Your task to perform on an android device: What's on my calendar tomorrow? Image 0: 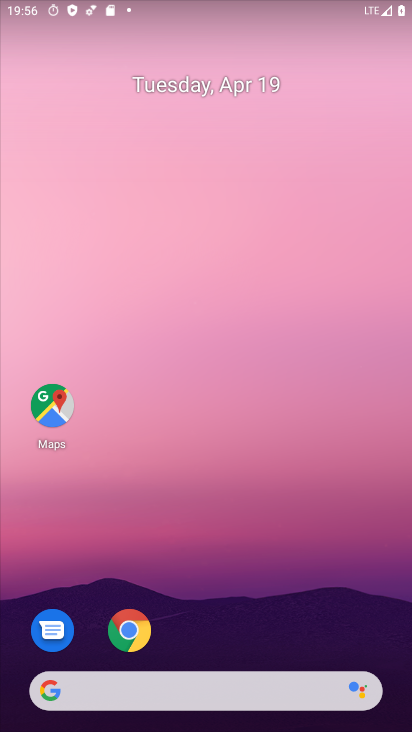
Step 0: drag from (219, 659) to (222, 302)
Your task to perform on an android device: What's on my calendar tomorrow? Image 1: 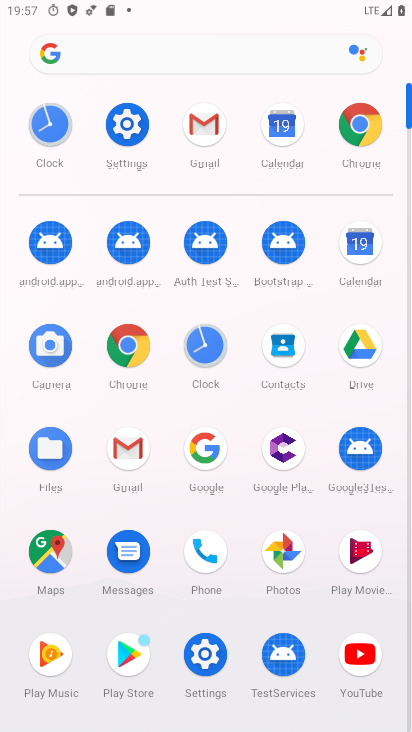
Step 1: click (361, 251)
Your task to perform on an android device: What's on my calendar tomorrow? Image 2: 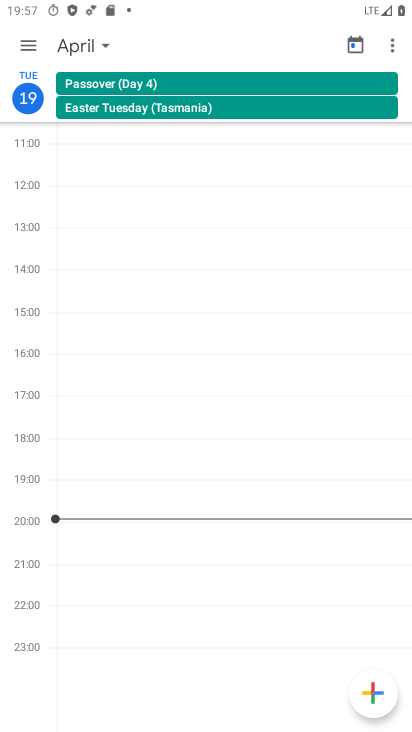
Step 2: click (23, 48)
Your task to perform on an android device: What's on my calendar tomorrow? Image 3: 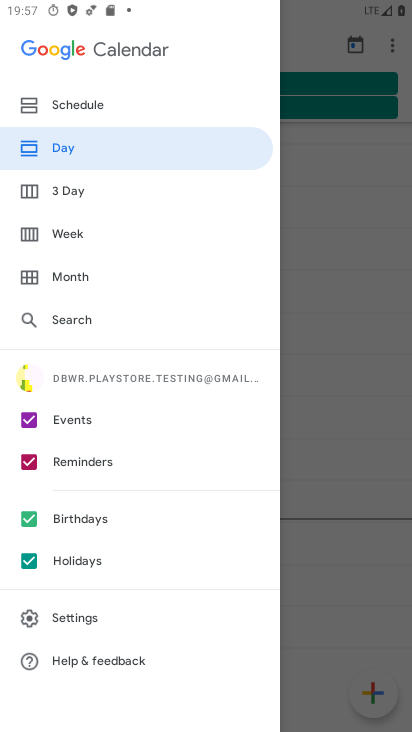
Step 3: click (58, 196)
Your task to perform on an android device: What's on my calendar tomorrow? Image 4: 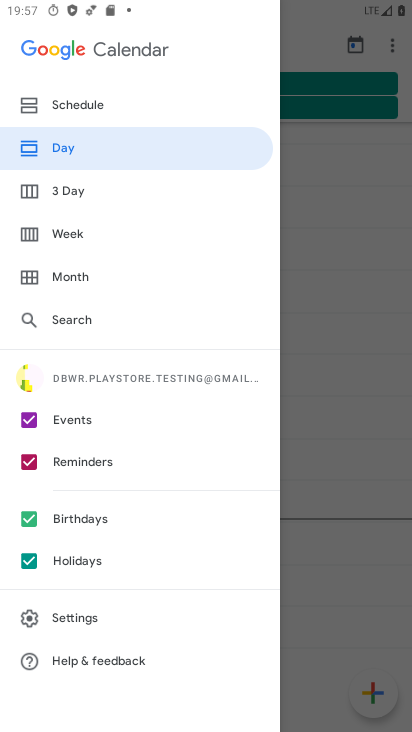
Step 4: click (58, 196)
Your task to perform on an android device: What's on my calendar tomorrow? Image 5: 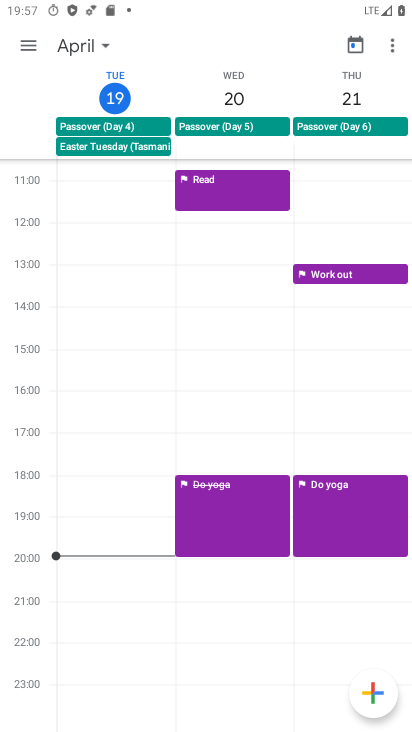
Step 5: click (228, 107)
Your task to perform on an android device: What's on my calendar tomorrow? Image 6: 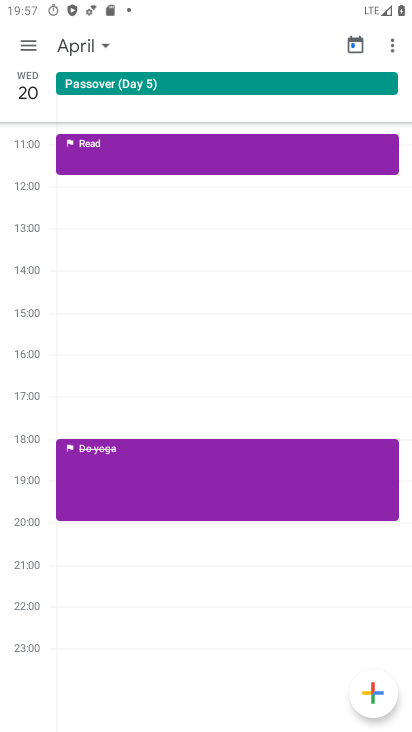
Step 6: task complete